Your task to perform on an android device: Search for sushi restaurants on Maps Image 0: 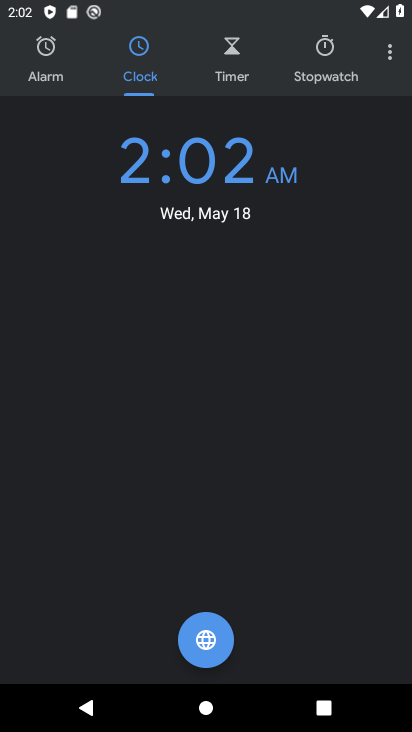
Step 0: press home button
Your task to perform on an android device: Search for sushi restaurants on Maps Image 1: 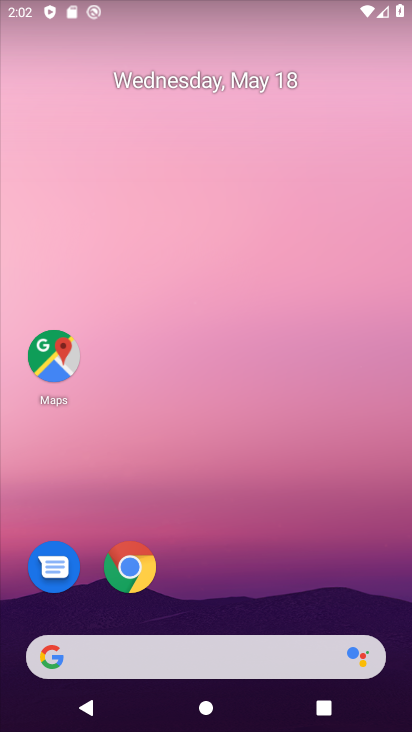
Step 1: click (29, 339)
Your task to perform on an android device: Search for sushi restaurants on Maps Image 2: 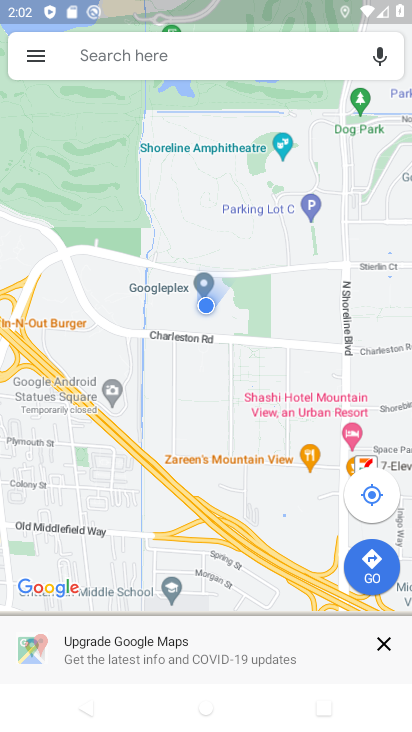
Step 2: click (248, 44)
Your task to perform on an android device: Search for sushi restaurants on Maps Image 3: 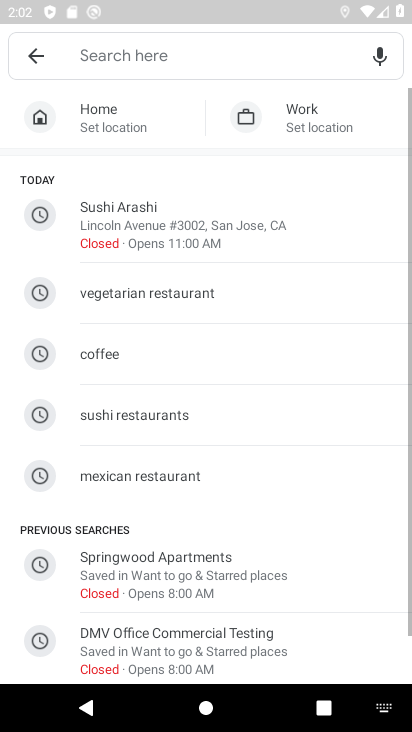
Step 3: click (228, 419)
Your task to perform on an android device: Search for sushi restaurants on Maps Image 4: 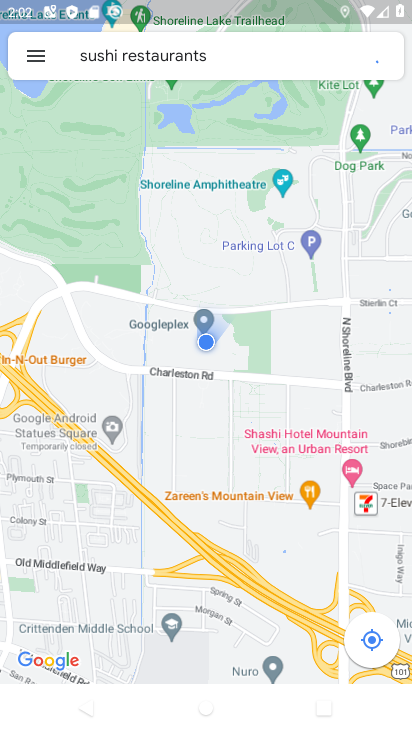
Step 4: task complete